Your task to perform on an android device: star an email in the gmail app Image 0: 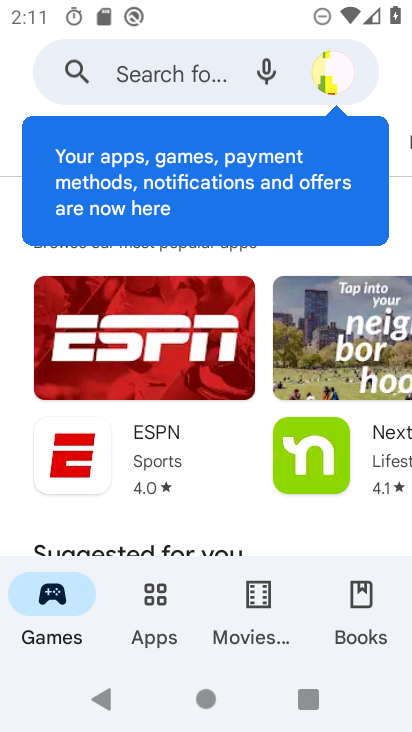
Step 0: press home button
Your task to perform on an android device: star an email in the gmail app Image 1: 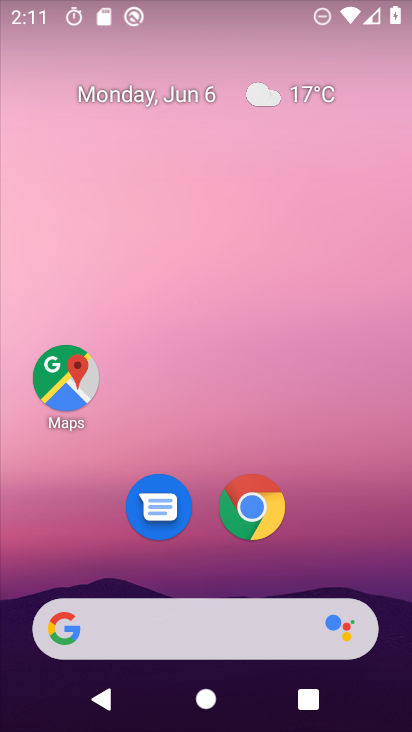
Step 1: drag from (256, 603) to (197, 183)
Your task to perform on an android device: star an email in the gmail app Image 2: 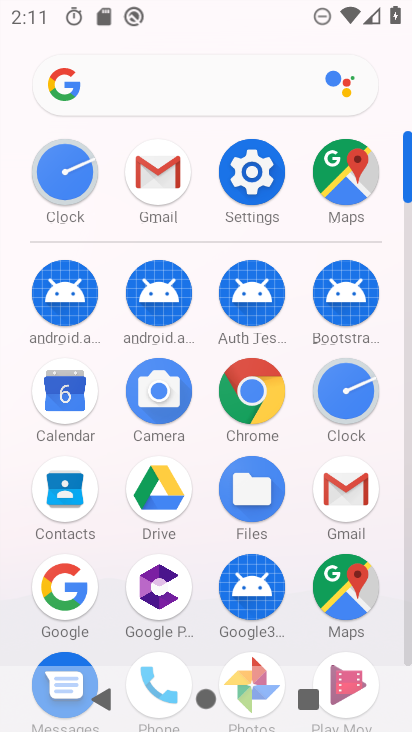
Step 2: click (138, 204)
Your task to perform on an android device: star an email in the gmail app Image 3: 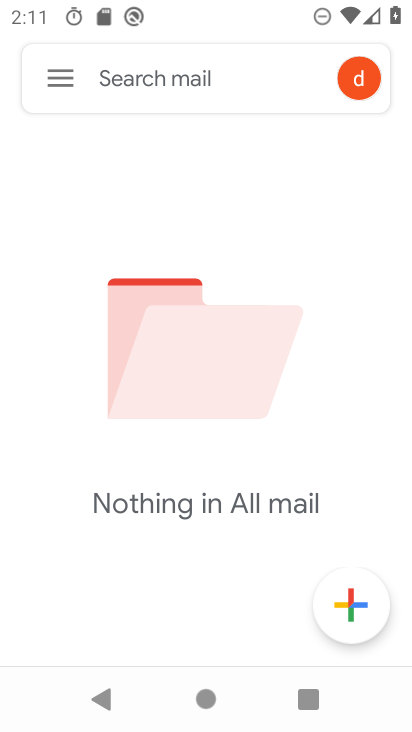
Step 3: click (29, 77)
Your task to perform on an android device: star an email in the gmail app Image 4: 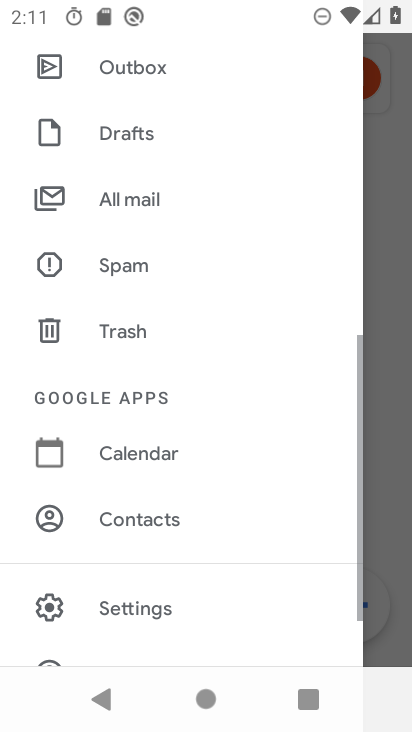
Step 4: drag from (117, 146) to (264, 503)
Your task to perform on an android device: star an email in the gmail app Image 5: 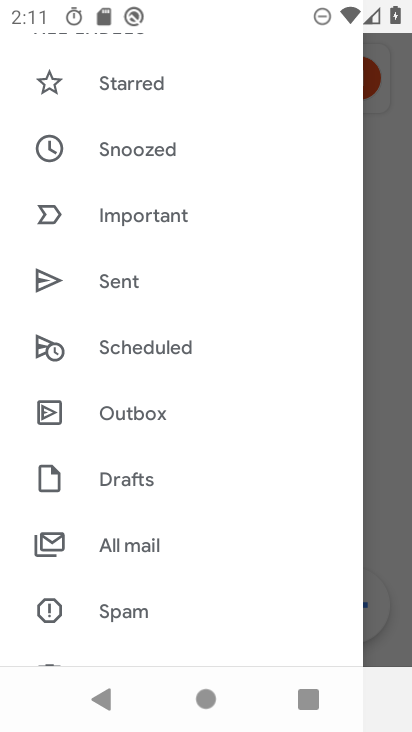
Step 5: click (138, 90)
Your task to perform on an android device: star an email in the gmail app Image 6: 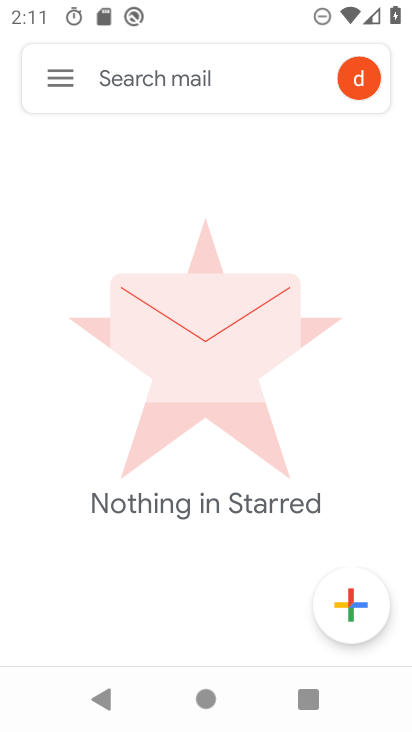
Step 6: task complete